Your task to perform on an android device: Go to eBay Image 0: 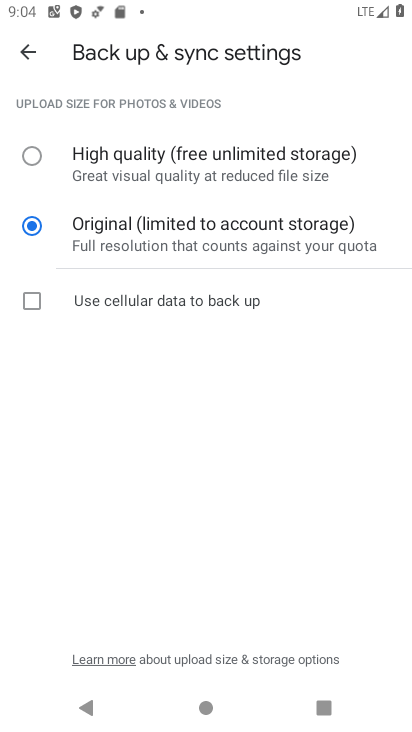
Step 0: press home button
Your task to perform on an android device: Go to eBay Image 1: 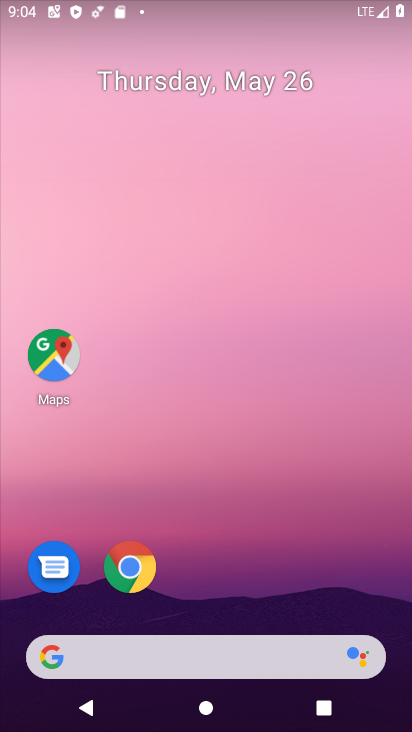
Step 1: click (182, 651)
Your task to perform on an android device: Go to eBay Image 2: 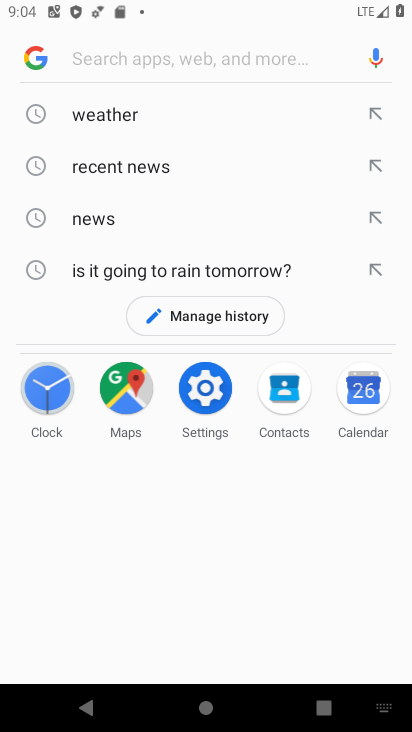
Step 2: type "ebay"
Your task to perform on an android device: Go to eBay Image 3: 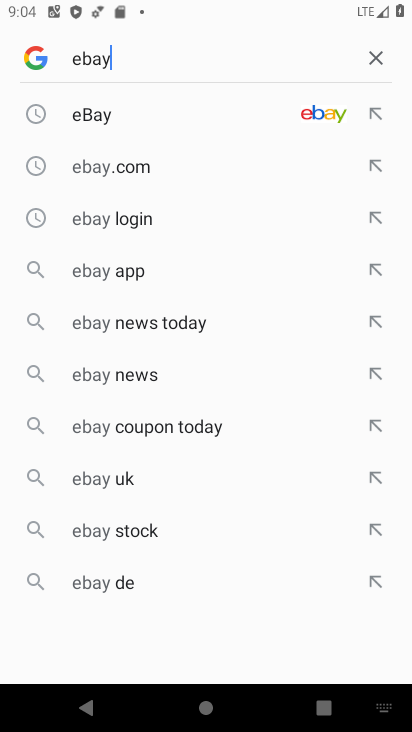
Step 3: click (335, 108)
Your task to perform on an android device: Go to eBay Image 4: 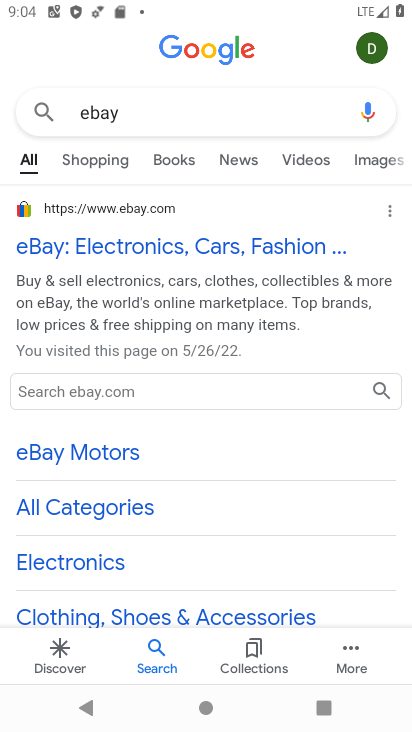
Step 4: click (144, 240)
Your task to perform on an android device: Go to eBay Image 5: 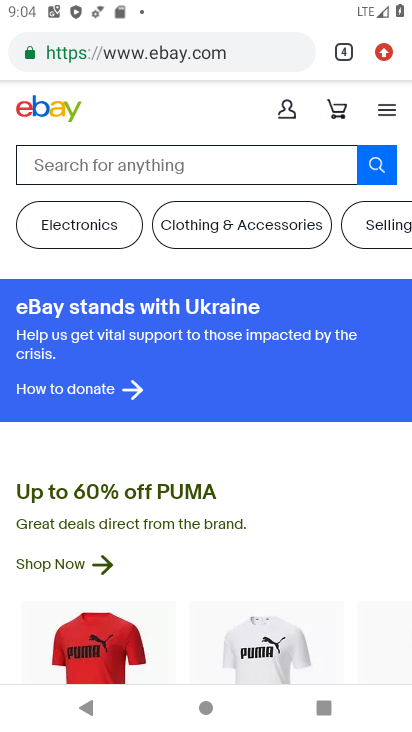
Step 5: task complete